Your task to perform on an android device: What's the weather going to be tomorrow? Image 0: 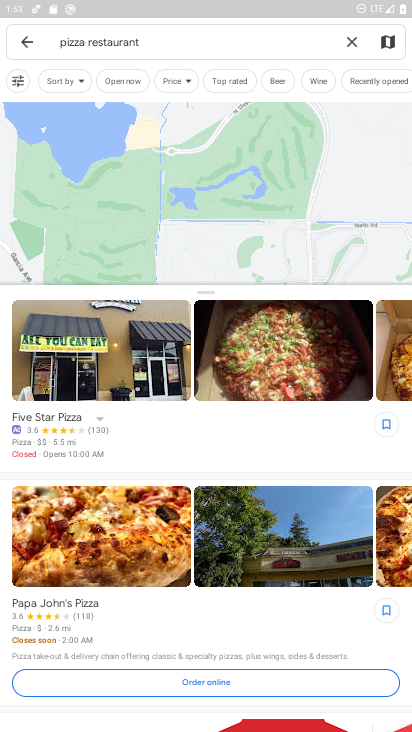
Step 0: press home button
Your task to perform on an android device: What's the weather going to be tomorrow? Image 1: 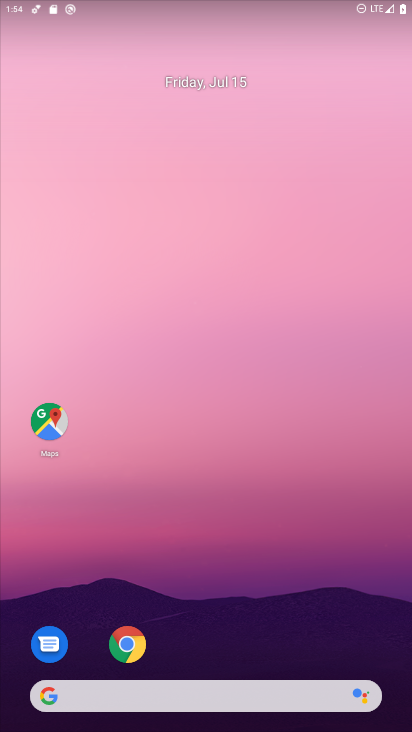
Step 1: click (219, 701)
Your task to perform on an android device: What's the weather going to be tomorrow? Image 2: 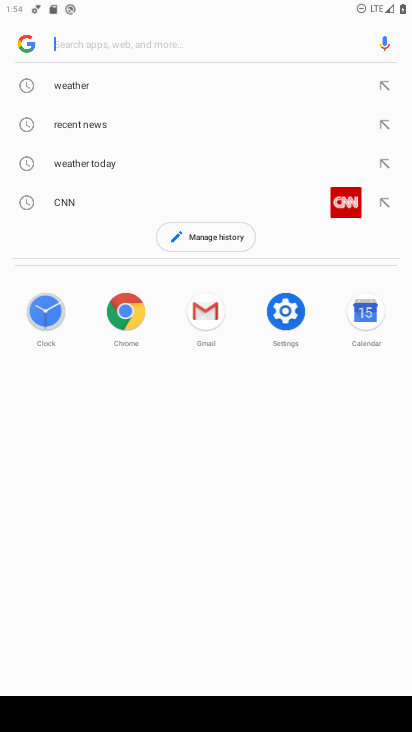
Step 2: click (105, 88)
Your task to perform on an android device: What's the weather going to be tomorrow? Image 3: 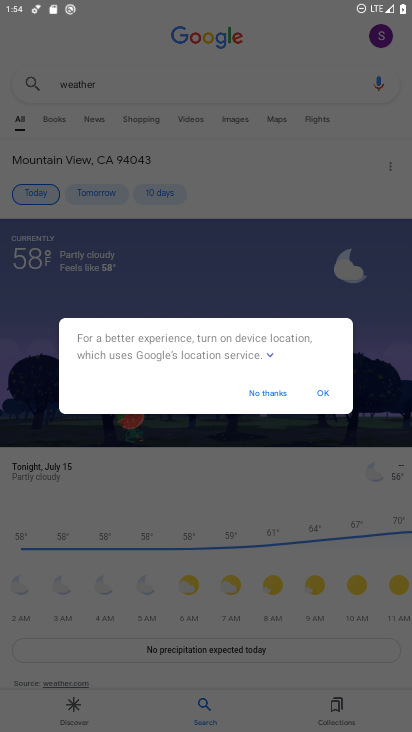
Step 3: click (315, 398)
Your task to perform on an android device: What's the weather going to be tomorrow? Image 4: 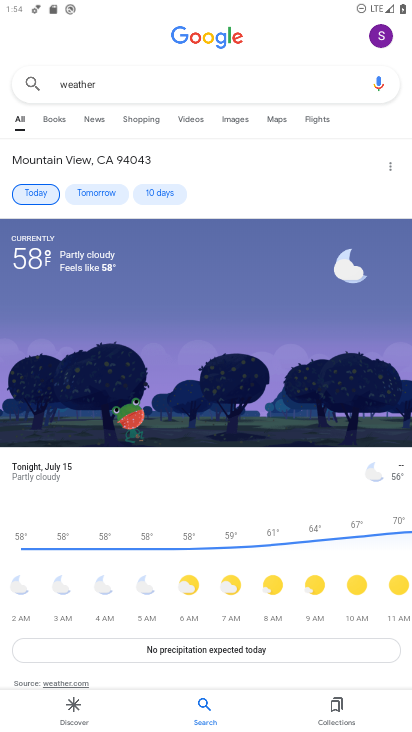
Step 4: click (95, 192)
Your task to perform on an android device: What's the weather going to be tomorrow? Image 5: 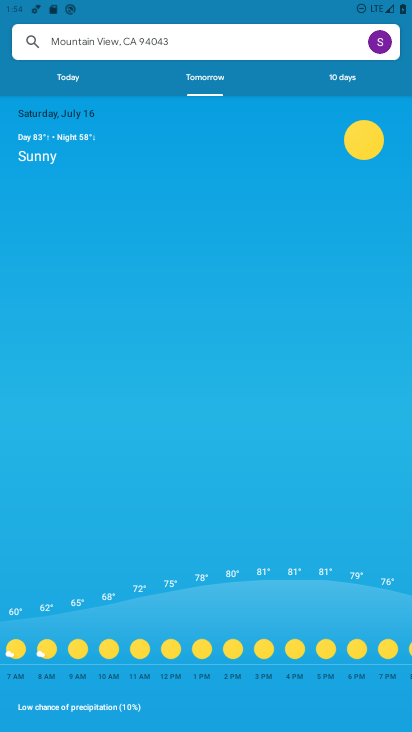
Step 5: task complete